Your task to perform on an android device: turn notification dots off Image 0: 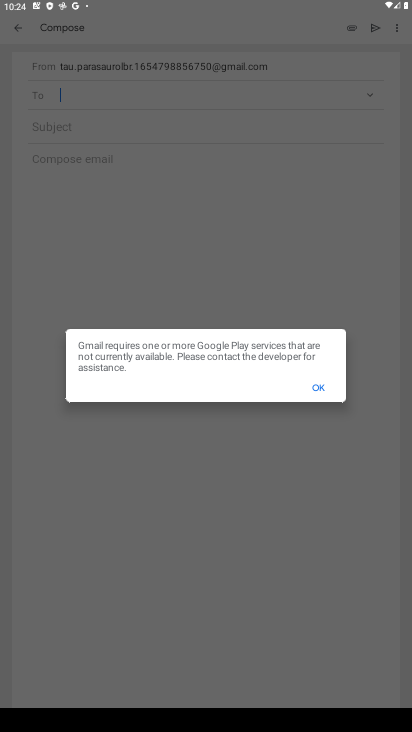
Step 0: task complete